Your task to perform on an android device: Look up the best rated headphones on Walmart. Image 0: 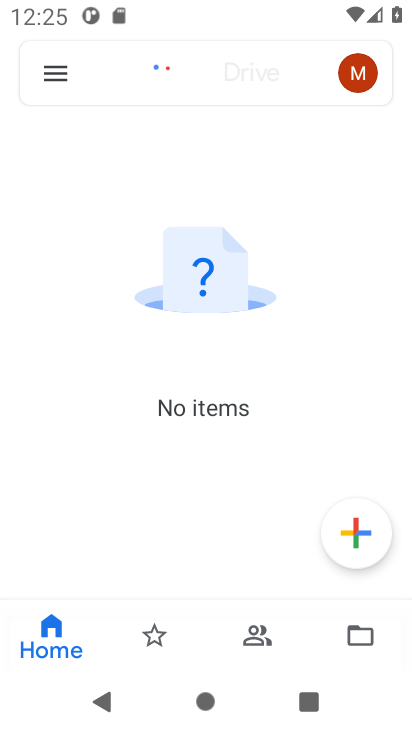
Step 0: press home button
Your task to perform on an android device: Look up the best rated headphones on Walmart. Image 1: 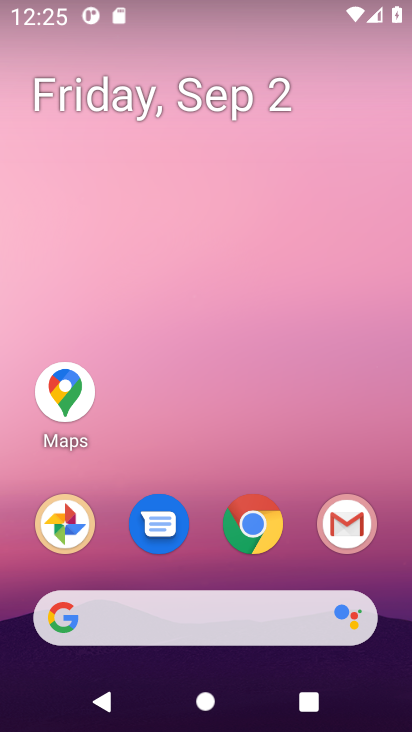
Step 1: click (257, 609)
Your task to perform on an android device: Look up the best rated headphones on Walmart. Image 2: 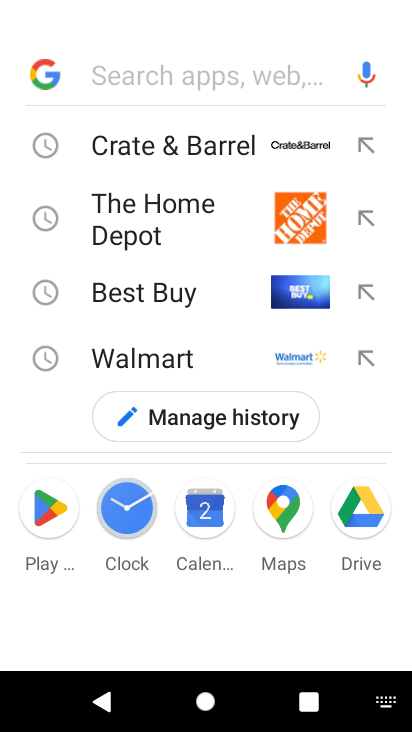
Step 2: press enter
Your task to perform on an android device: Look up the best rated headphones on Walmart. Image 3: 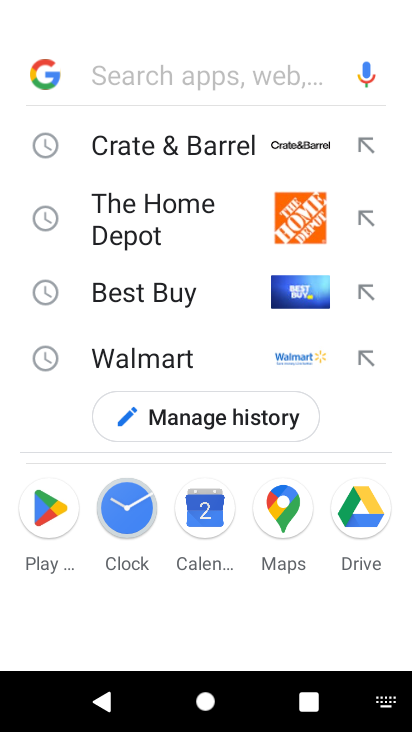
Step 3: type "walmart"
Your task to perform on an android device: Look up the best rated headphones on Walmart. Image 4: 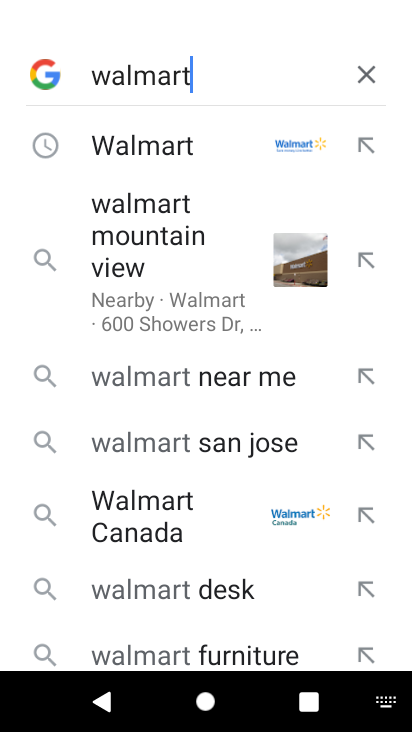
Step 4: click (173, 152)
Your task to perform on an android device: Look up the best rated headphones on Walmart. Image 5: 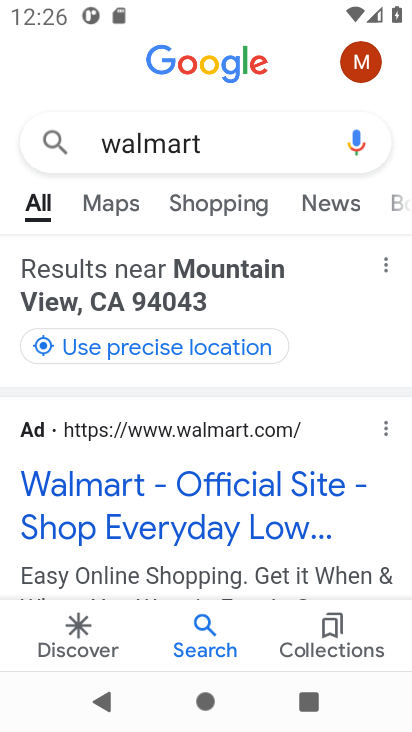
Step 5: click (269, 489)
Your task to perform on an android device: Look up the best rated headphones on Walmart. Image 6: 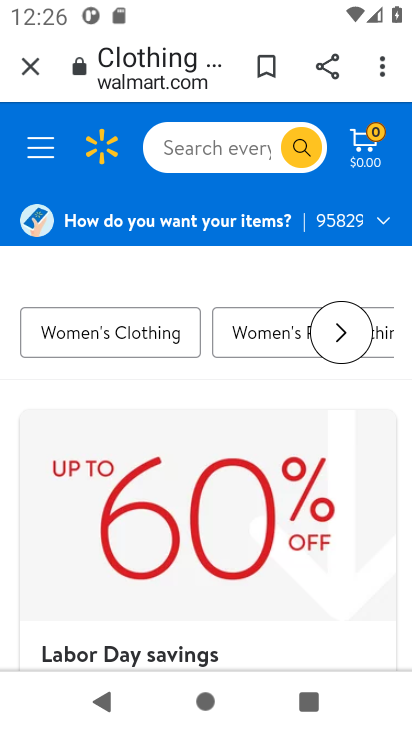
Step 6: click (216, 148)
Your task to perform on an android device: Look up the best rated headphones on Walmart. Image 7: 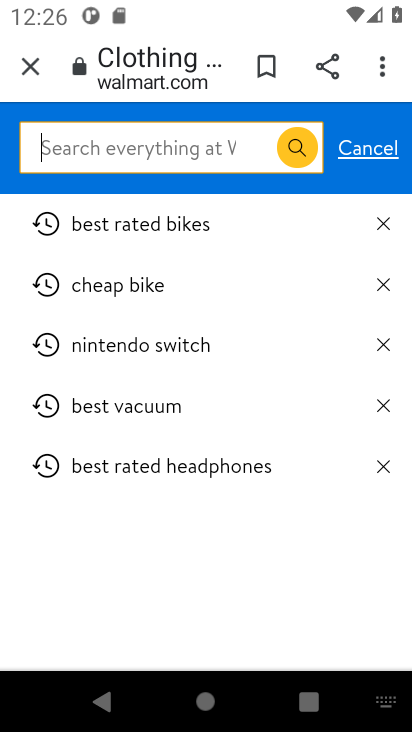
Step 7: click (237, 455)
Your task to perform on an android device: Look up the best rated headphones on Walmart. Image 8: 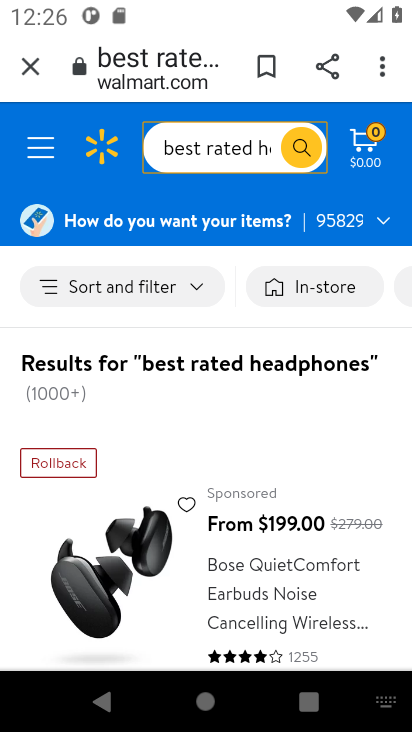
Step 8: task complete